Your task to perform on an android device: Is it going to rain tomorrow? Image 0: 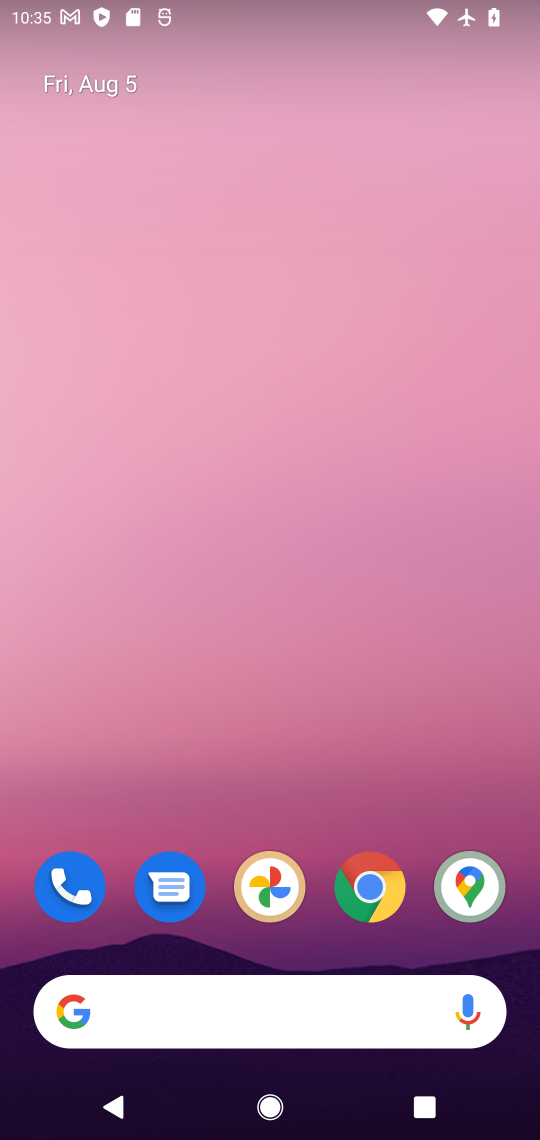
Step 0: press home button
Your task to perform on an android device: Is it going to rain tomorrow? Image 1: 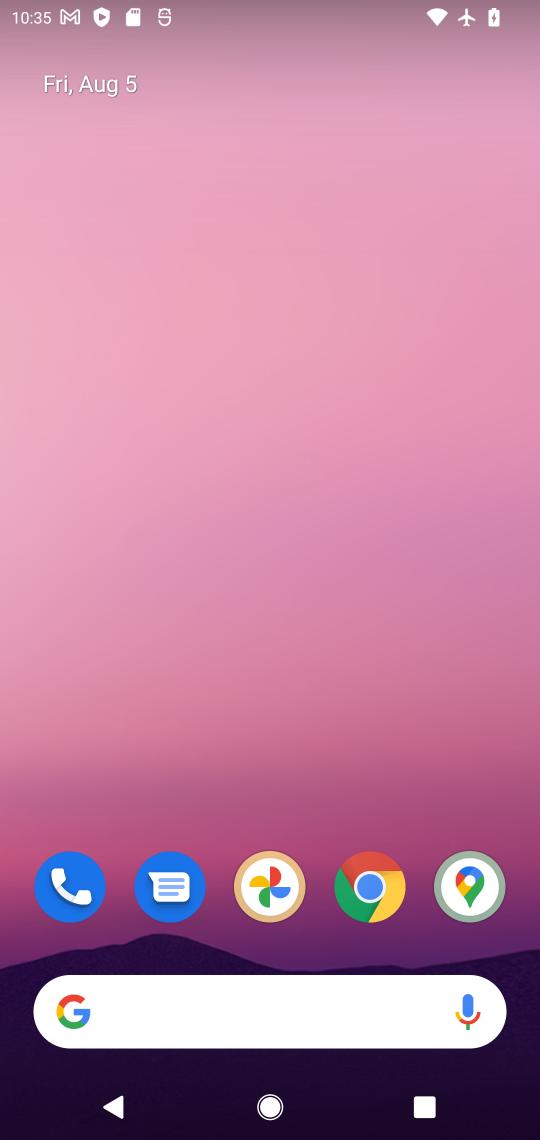
Step 1: click (61, 1013)
Your task to perform on an android device: Is it going to rain tomorrow? Image 2: 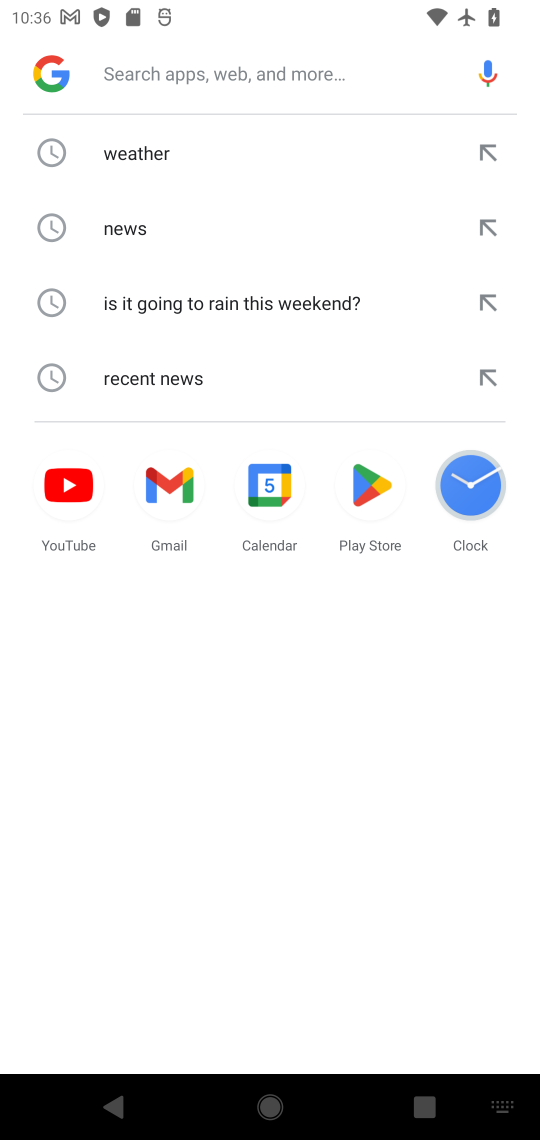
Step 2: type "rain tomorrow?"
Your task to perform on an android device: Is it going to rain tomorrow? Image 3: 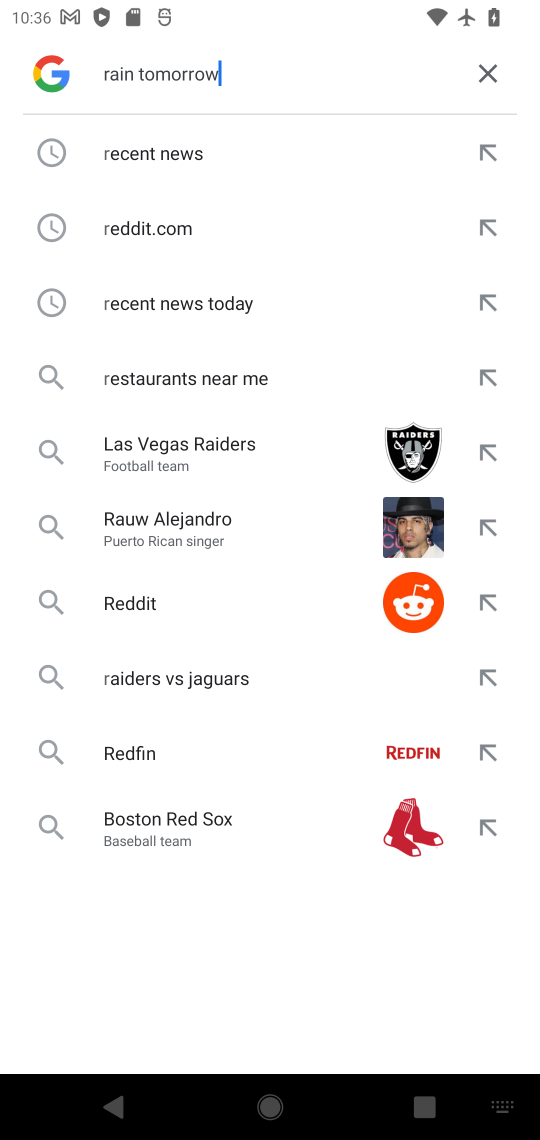
Step 3: press enter
Your task to perform on an android device: Is it going to rain tomorrow? Image 4: 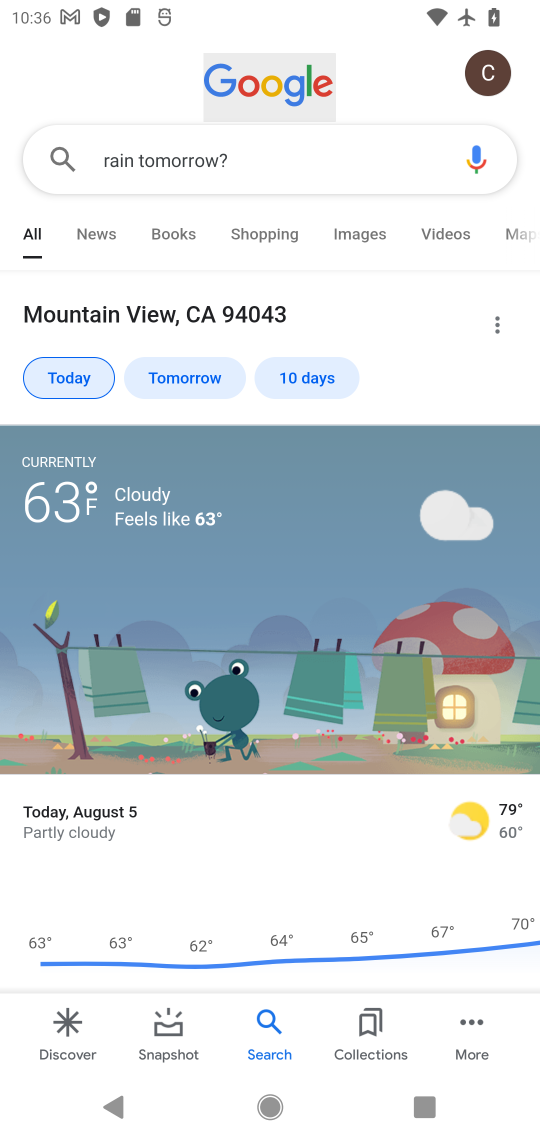
Step 4: task complete